Your task to perform on an android device: Set the phone to "Do not disturb". Image 0: 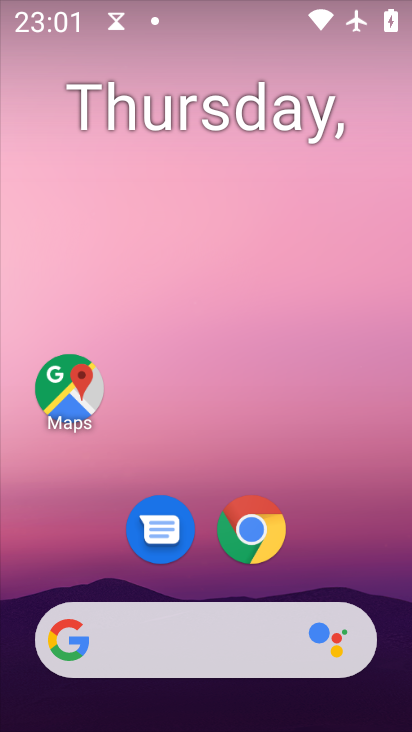
Step 0: drag from (230, 583) to (296, 47)
Your task to perform on an android device: Set the phone to "Do not disturb". Image 1: 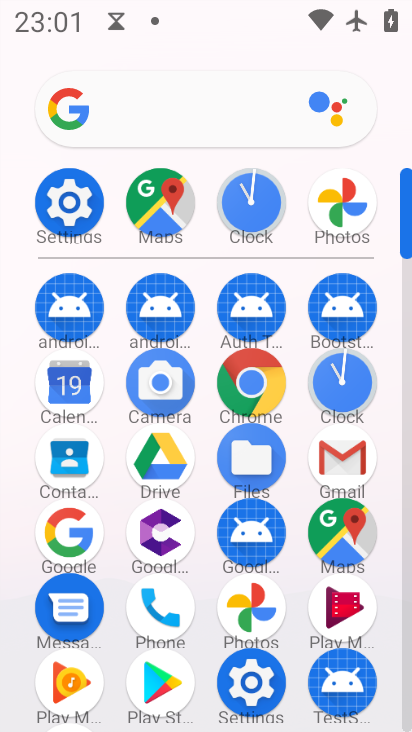
Step 1: click (62, 197)
Your task to perform on an android device: Set the phone to "Do not disturb". Image 2: 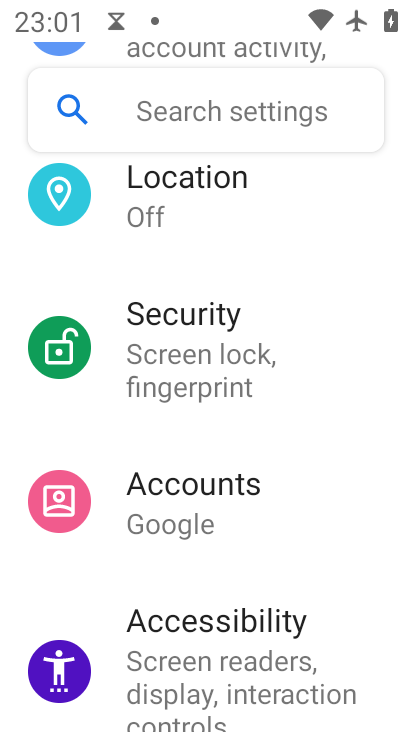
Step 2: drag from (212, 317) to (233, 669)
Your task to perform on an android device: Set the phone to "Do not disturb". Image 3: 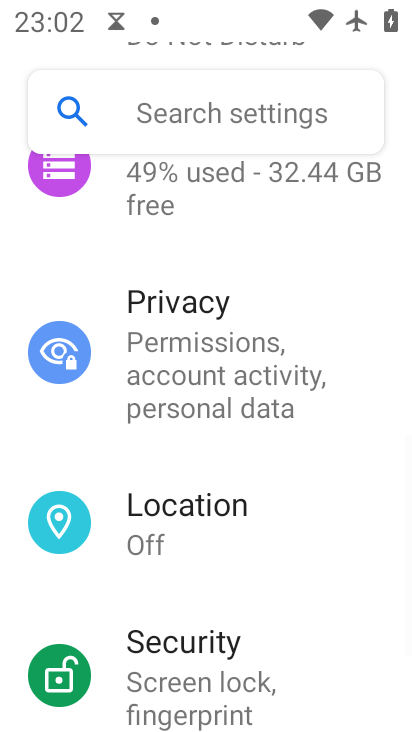
Step 3: drag from (284, 305) to (307, 656)
Your task to perform on an android device: Set the phone to "Do not disturb". Image 4: 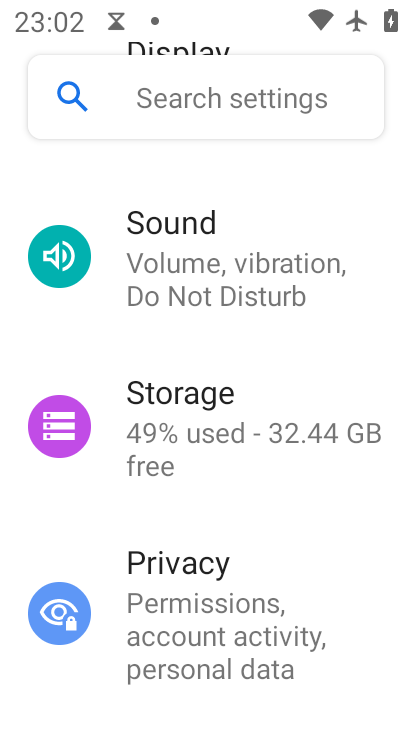
Step 4: click (282, 284)
Your task to perform on an android device: Set the phone to "Do not disturb". Image 5: 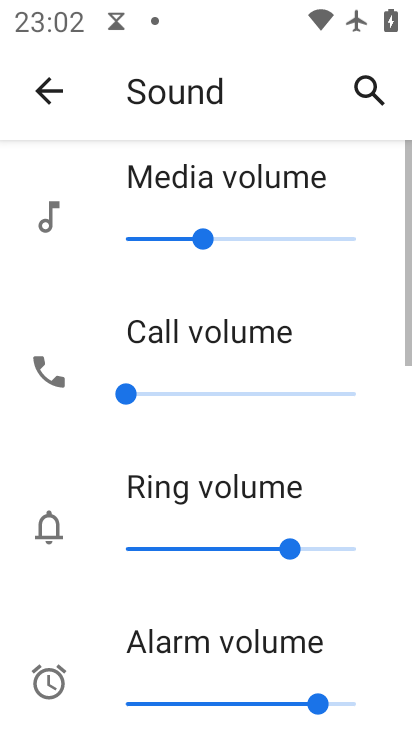
Step 5: drag from (199, 590) to (196, 66)
Your task to perform on an android device: Set the phone to "Do not disturb". Image 6: 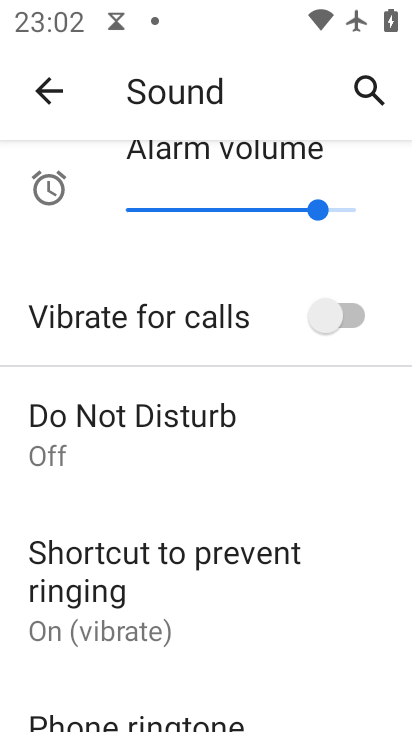
Step 6: click (174, 455)
Your task to perform on an android device: Set the phone to "Do not disturb". Image 7: 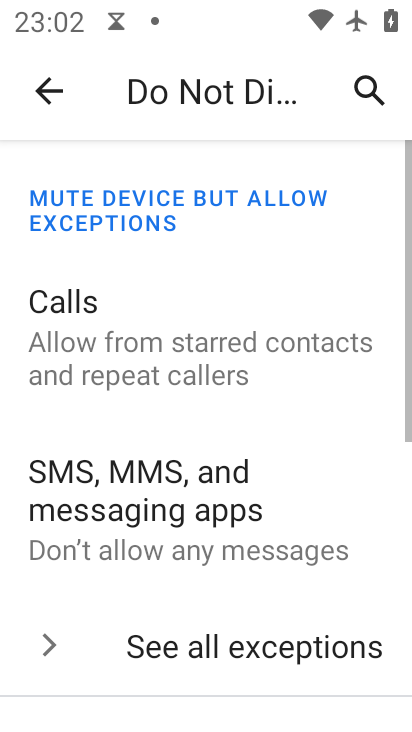
Step 7: drag from (218, 656) to (223, 261)
Your task to perform on an android device: Set the phone to "Do not disturb". Image 8: 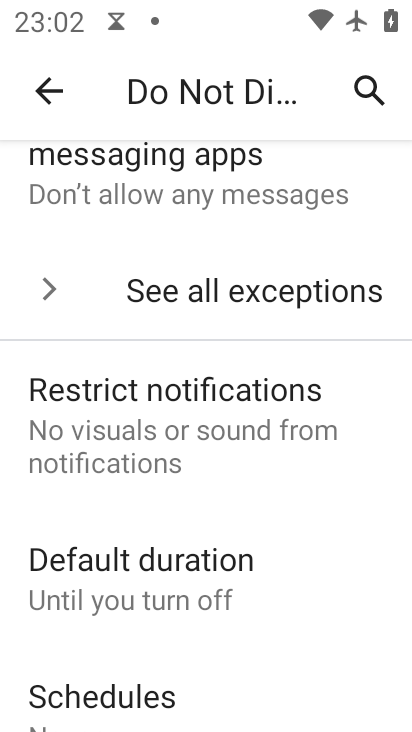
Step 8: drag from (196, 694) to (224, 258)
Your task to perform on an android device: Set the phone to "Do not disturb". Image 9: 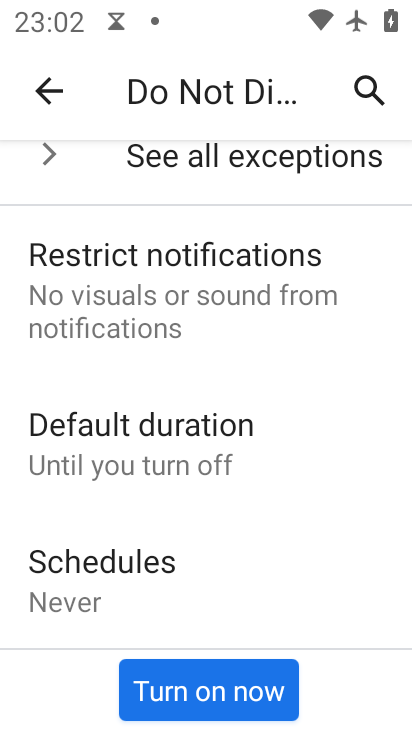
Step 9: click (205, 698)
Your task to perform on an android device: Set the phone to "Do not disturb". Image 10: 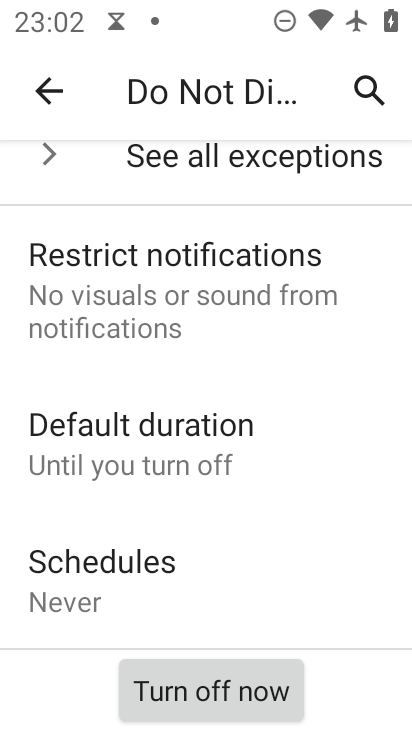
Step 10: task complete